Your task to perform on an android device: Is it going to rain today? Image 0: 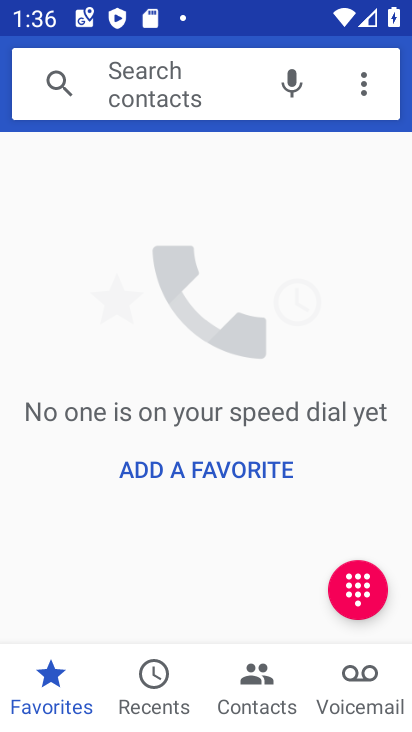
Step 0: press home button
Your task to perform on an android device: Is it going to rain today? Image 1: 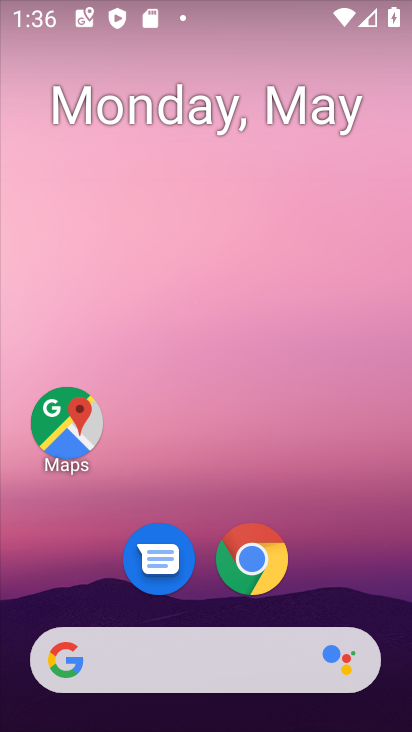
Step 1: click (224, 655)
Your task to perform on an android device: Is it going to rain today? Image 2: 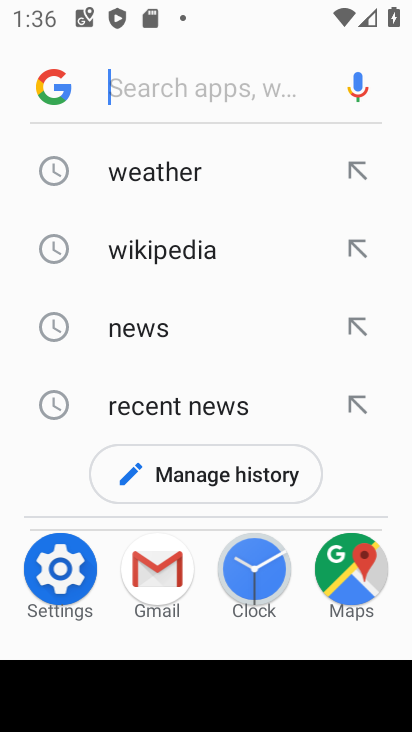
Step 2: type "Is it going to rain today?"
Your task to perform on an android device: Is it going to rain today? Image 3: 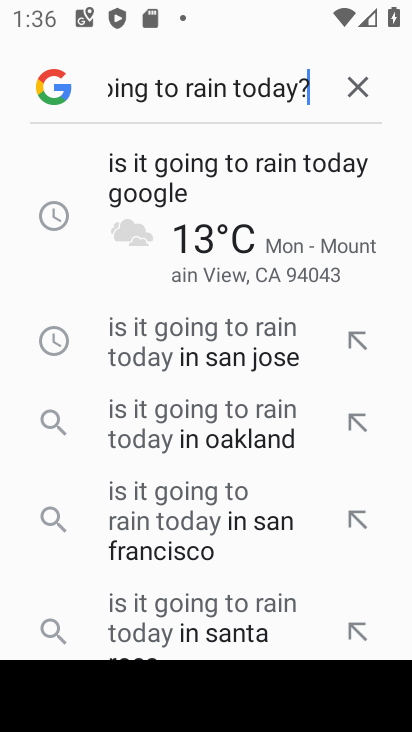
Step 3: click (289, 245)
Your task to perform on an android device: Is it going to rain today? Image 4: 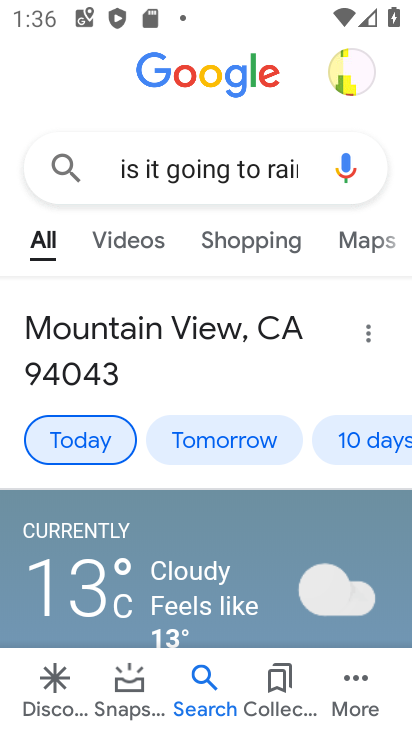
Step 4: task complete